Your task to perform on an android device: Turn on the flashlight Image 0: 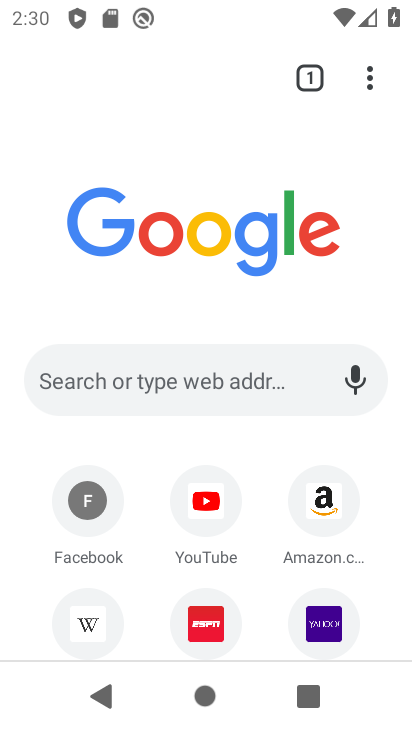
Step 0: press back button
Your task to perform on an android device: Turn on the flashlight Image 1: 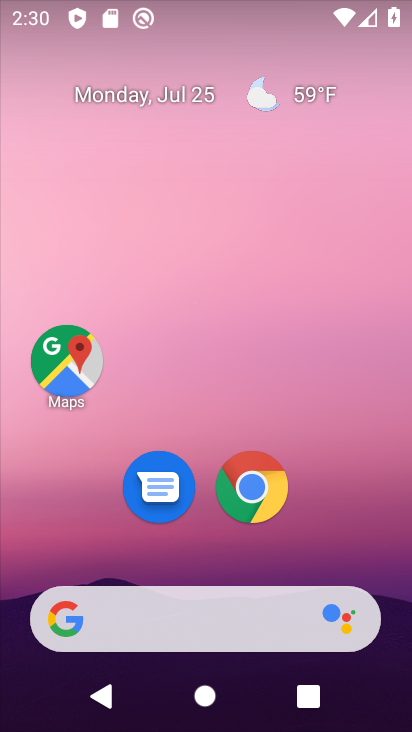
Step 1: drag from (114, 565) to (244, 29)
Your task to perform on an android device: Turn on the flashlight Image 2: 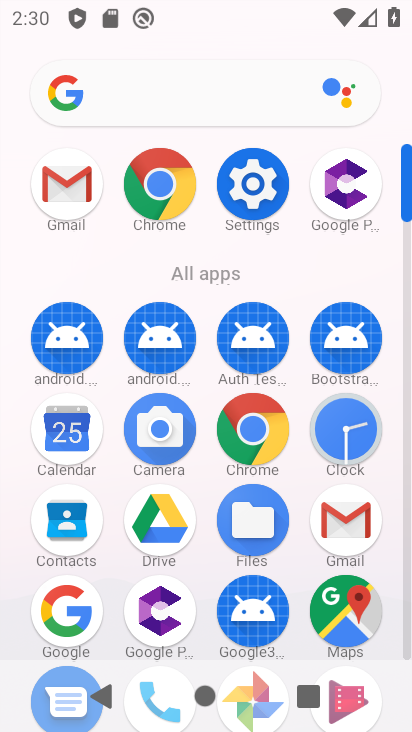
Step 2: click (259, 178)
Your task to perform on an android device: Turn on the flashlight Image 3: 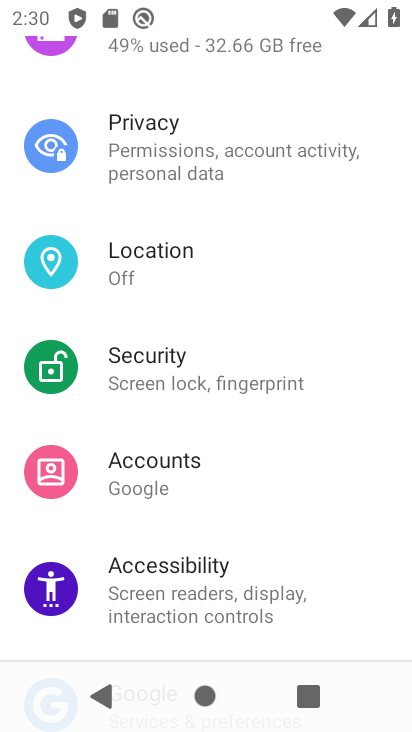
Step 3: drag from (173, 159) to (176, 700)
Your task to perform on an android device: Turn on the flashlight Image 4: 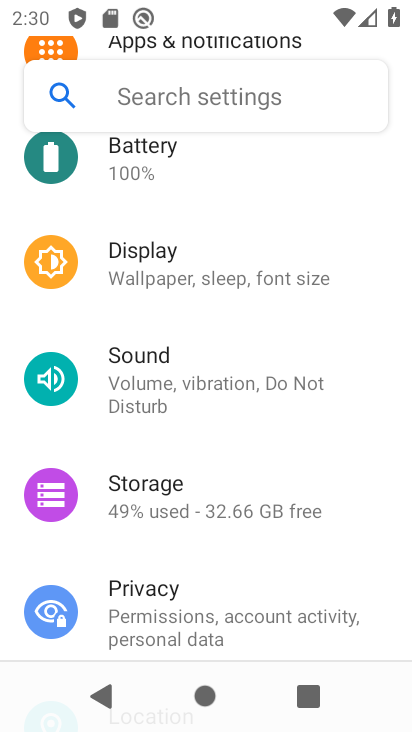
Step 4: click (168, 81)
Your task to perform on an android device: Turn on the flashlight Image 5: 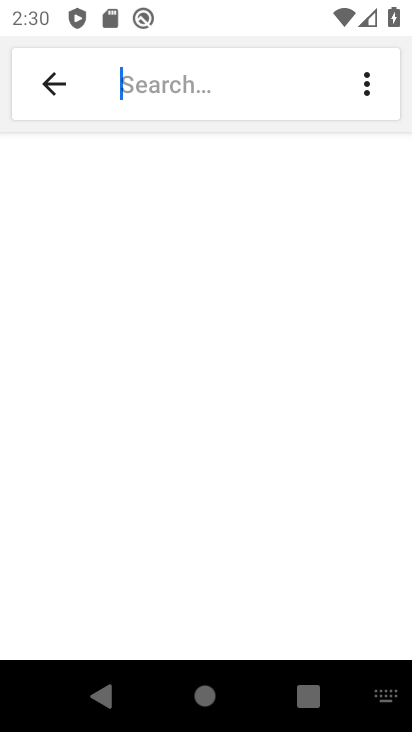
Step 5: type "flashlight"
Your task to perform on an android device: Turn on the flashlight Image 6: 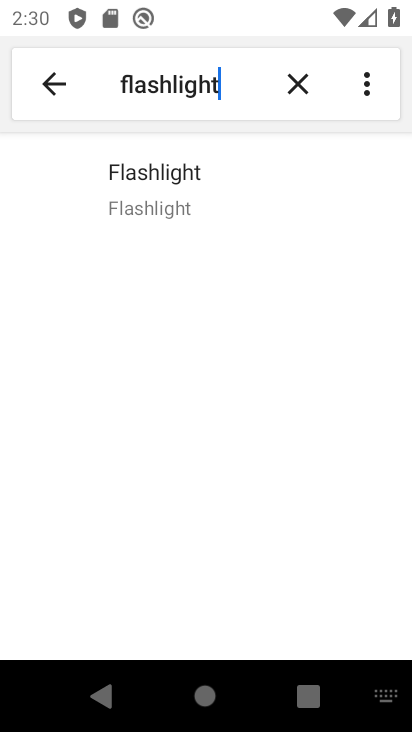
Step 6: click (205, 171)
Your task to perform on an android device: Turn on the flashlight Image 7: 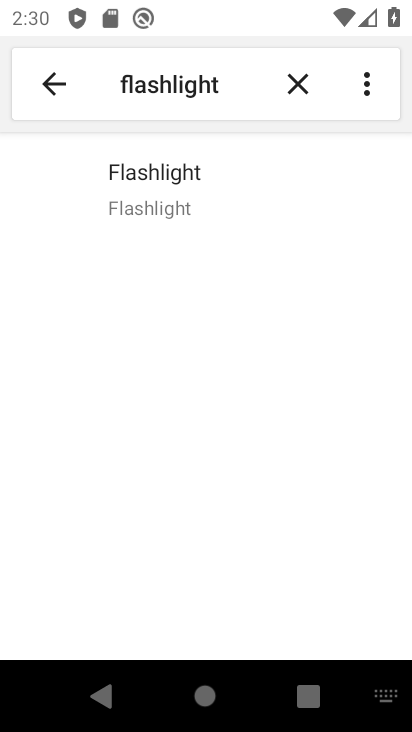
Step 7: task complete